Your task to perform on an android device: search for starred emails in the gmail app Image 0: 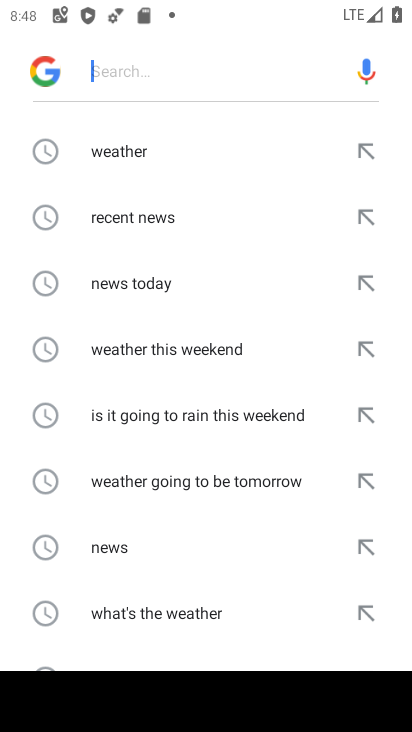
Step 0: press home button
Your task to perform on an android device: search for starred emails in the gmail app Image 1: 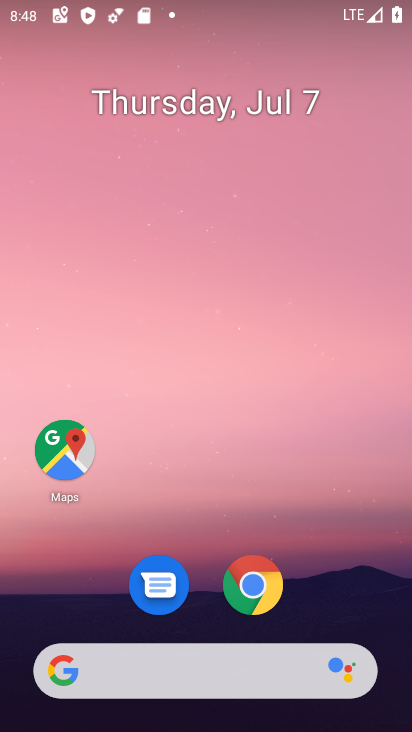
Step 1: drag from (201, 510) to (219, 15)
Your task to perform on an android device: search for starred emails in the gmail app Image 2: 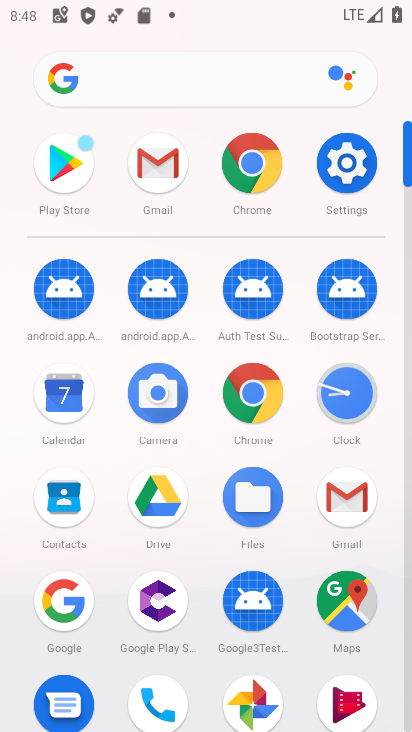
Step 2: click (171, 169)
Your task to perform on an android device: search for starred emails in the gmail app Image 3: 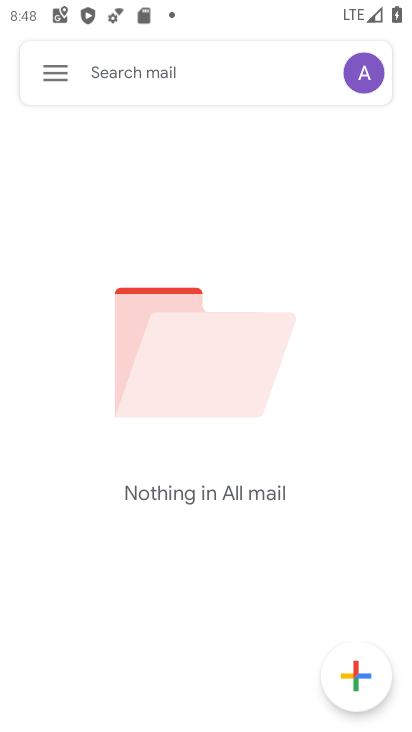
Step 3: click (56, 74)
Your task to perform on an android device: search for starred emails in the gmail app Image 4: 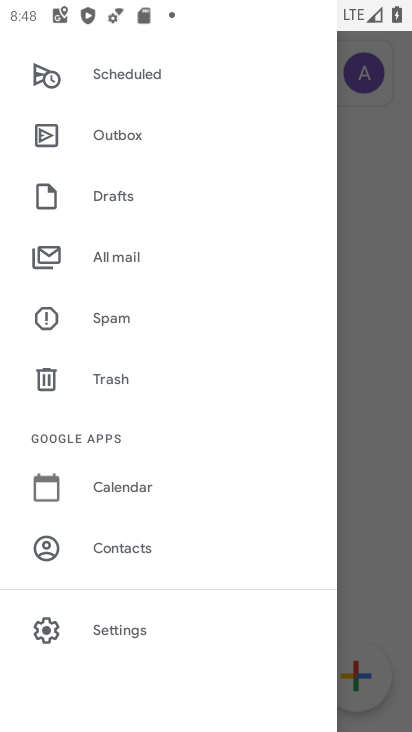
Step 4: drag from (158, 193) to (156, 638)
Your task to perform on an android device: search for starred emails in the gmail app Image 5: 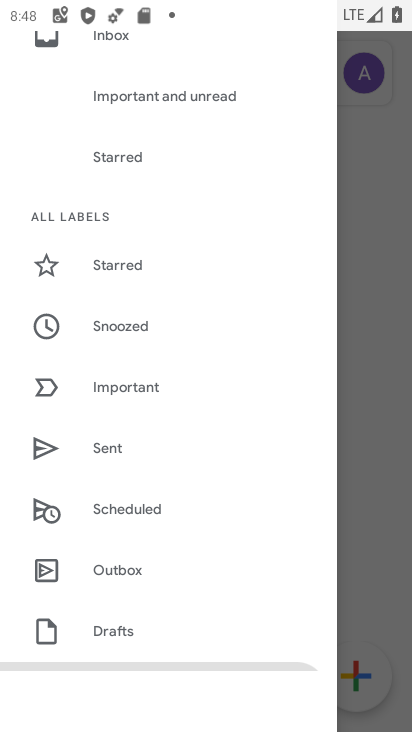
Step 5: click (120, 260)
Your task to perform on an android device: search for starred emails in the gmail app Image 6: 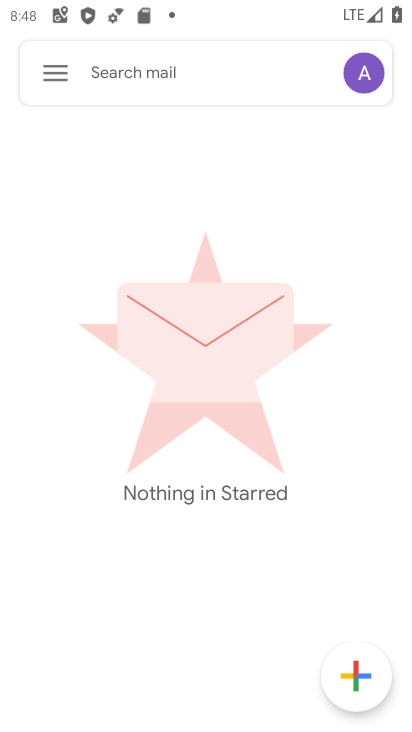
Step 6: task complete